Your task to perform on an android device: clear history in the chrome app Image 0: 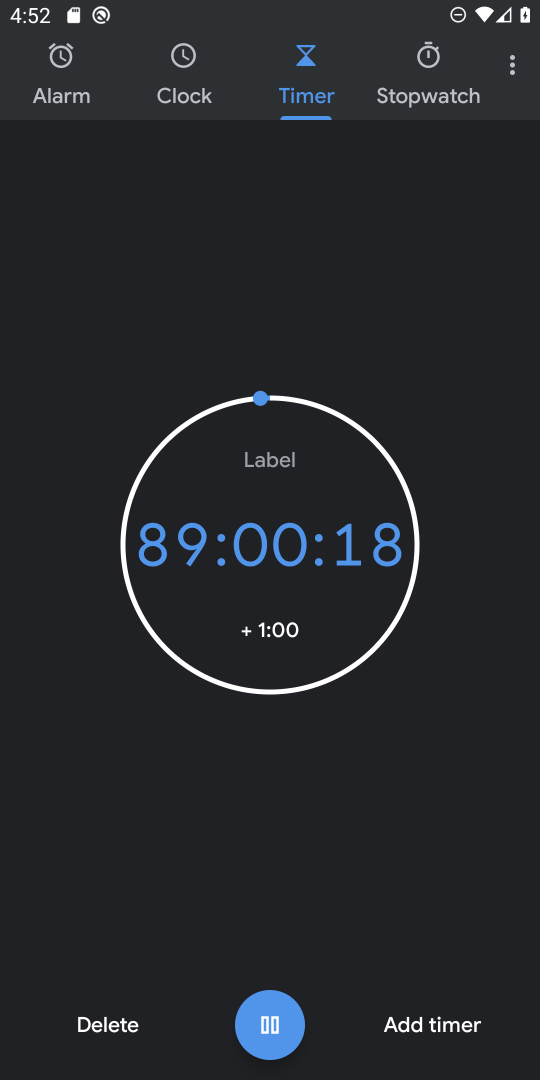
Step 0: press home button
Your task to perform on an android device: clear history in the chrome app Image 1: 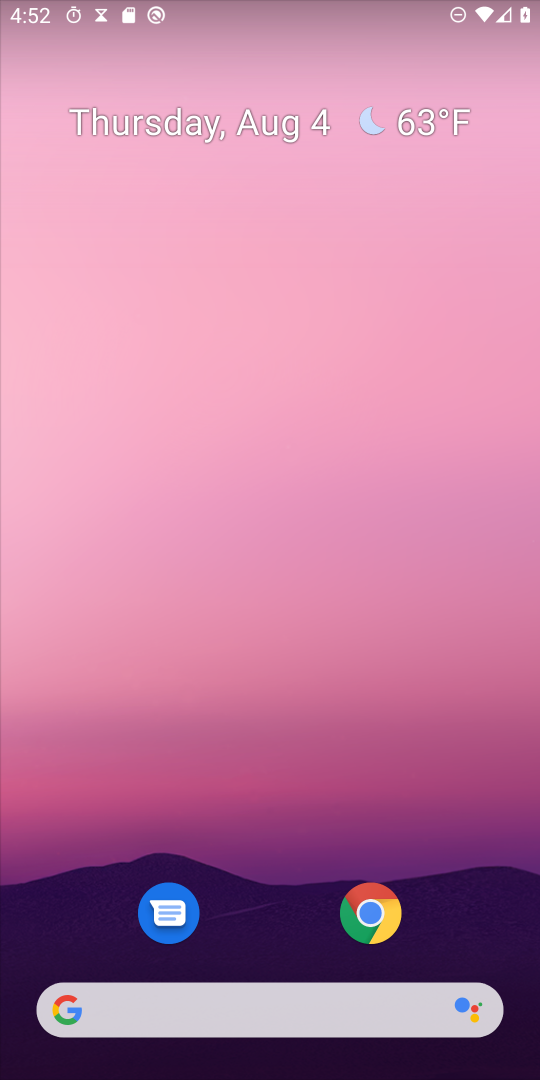
Step 1: drag from (304, 997) to (389, 53)
Your task to perform on an android device: clear history in the chrome app Image 2: 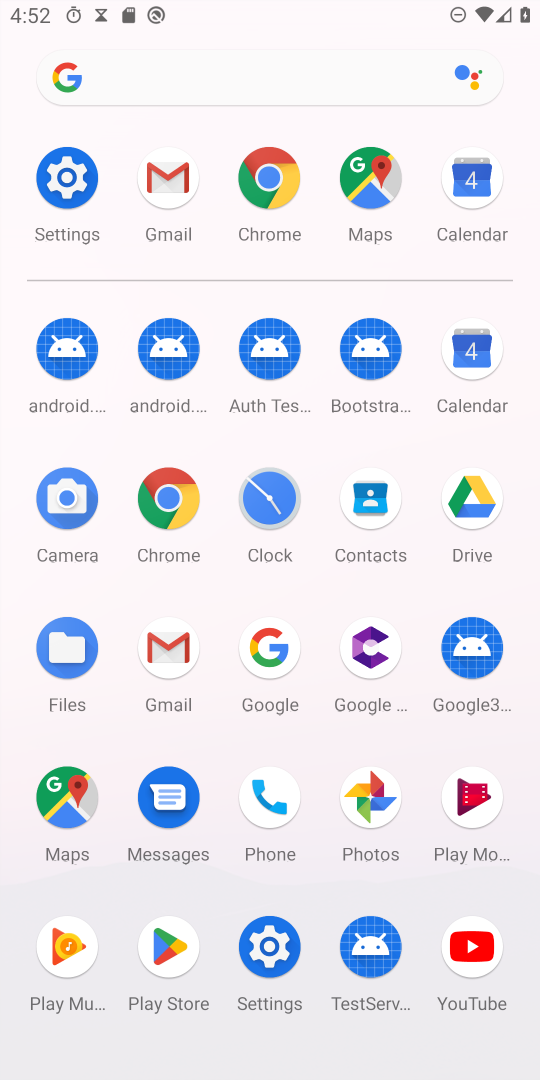
Step 2: click (156, 491)
Your task to perform on an android device: clear history in the chrome app Image 3: 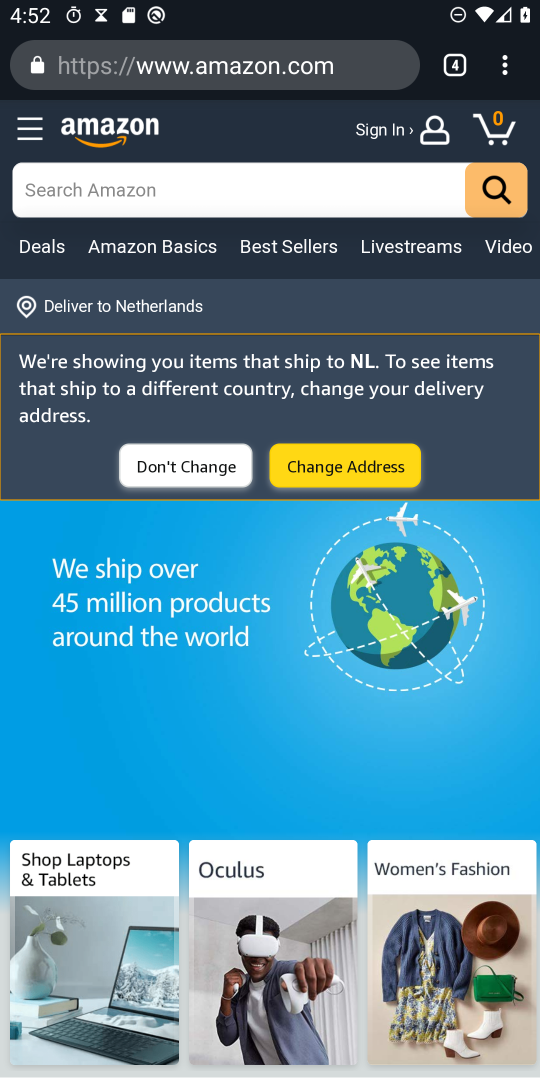
Step 3: click (515, 70)
Your task to perform on an android device: clear history in the chrome app Image 4: 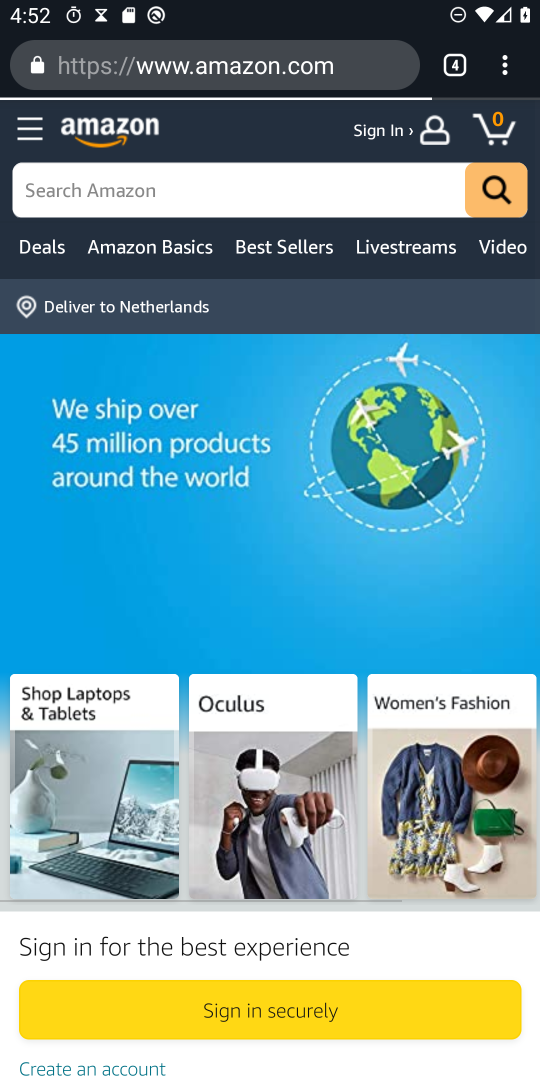
Step 4: drag from (507, 64) to (301, 368)
Your task to perform on an android device: clear history in the chrome app Image 5: 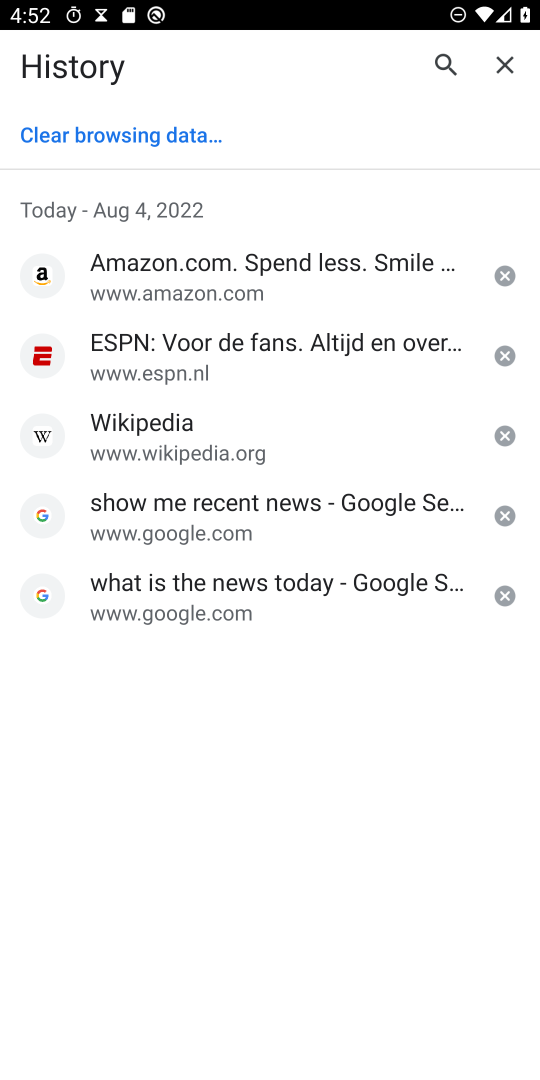
Step 5: click (185, 131)
Your task to perform on an android device: clear history in the chrome app Image 6: 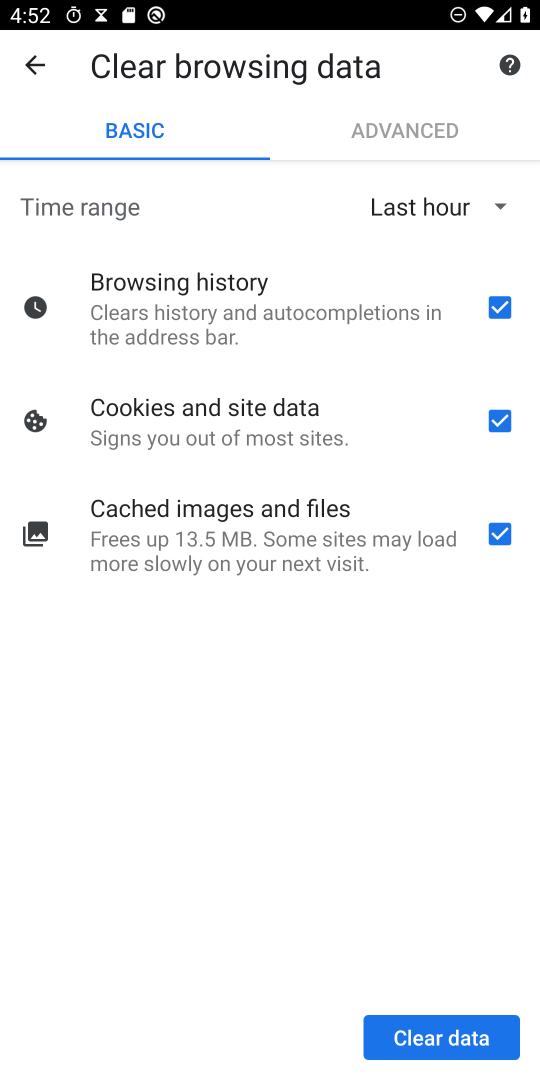
Step 6: click (445, 1023)
Your task to perform on an android device: clear history in the chrome app Image 7: 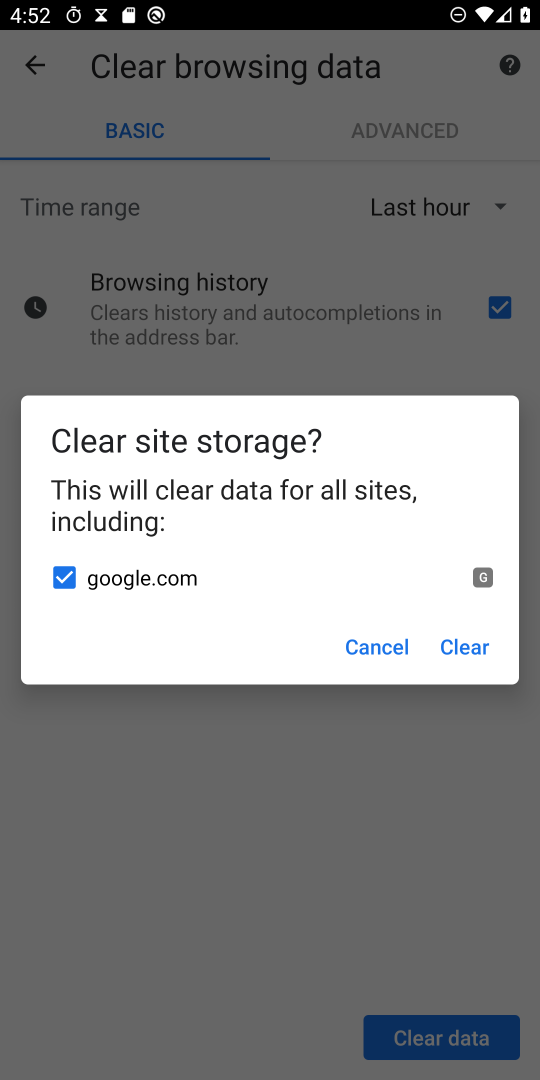
Step 7: click (443, 640)
Your task to perform on an android device: clear history in the chrome app Image 8: 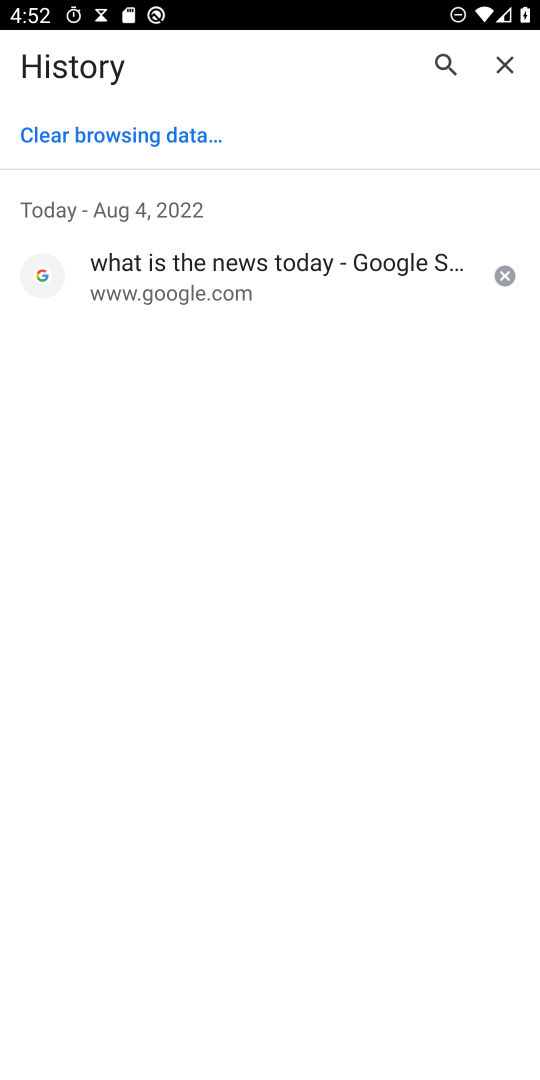
Step 8: click (509, 275)
Your task to perform on an android device: clear history in the chrome app Image 9: 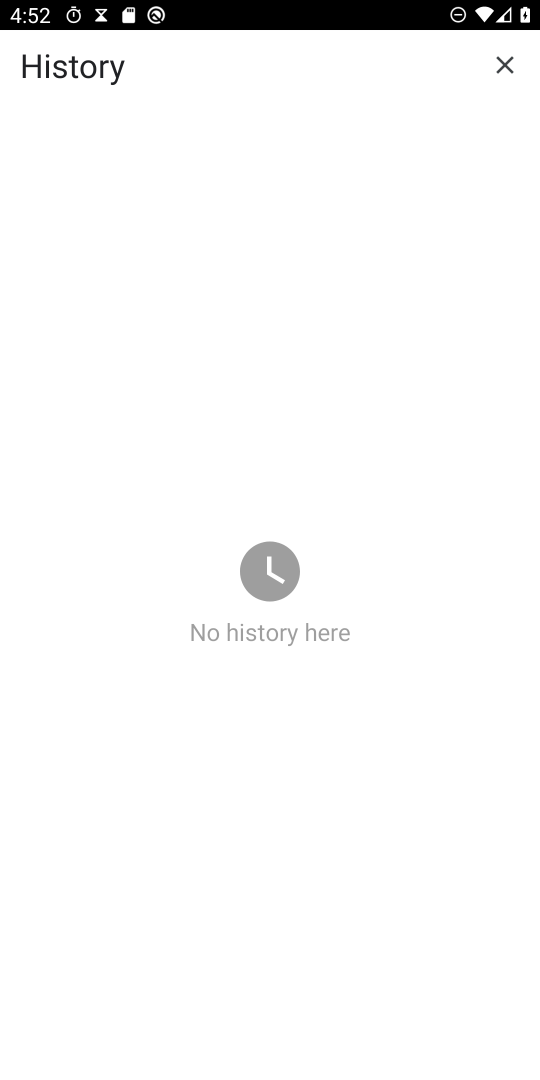
Step 9: task complete